Your task to perform on an android device: Check the news Image 0: 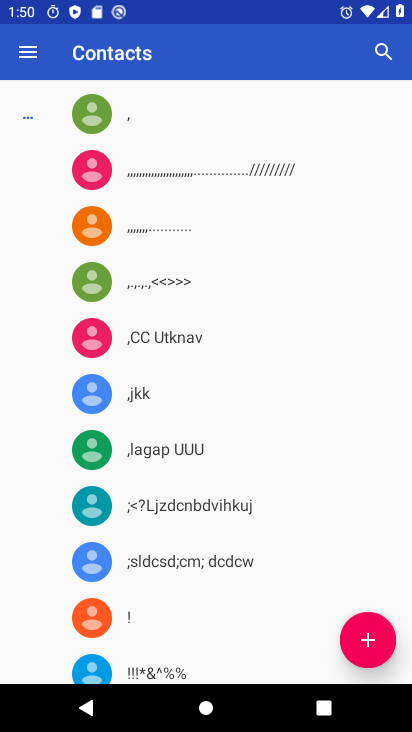
Step 0: press home button
Your task to perform on an android device: Check the news Image 1: 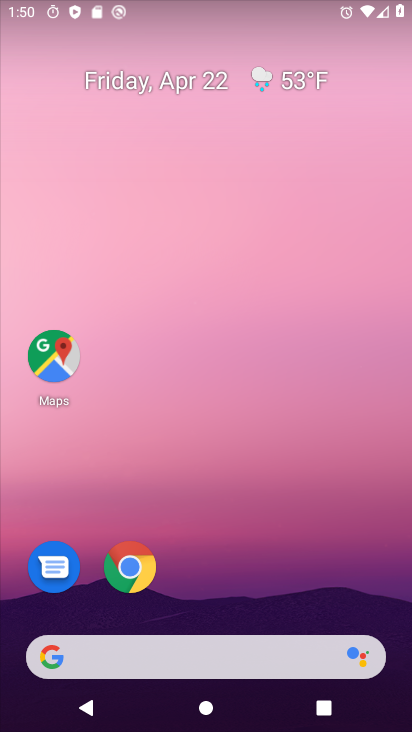
Step 1: click (144, 655)
Your task to perform on an android device: Check the news Image 2: 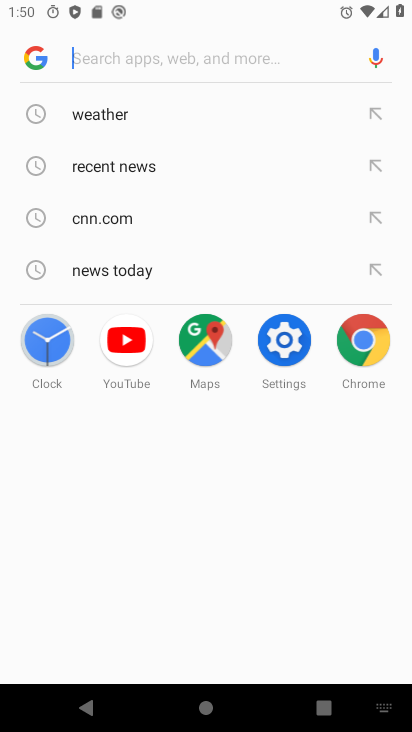
Step 2: click (90, 263)
Your task to perform on an android device: Check the news Image 3: 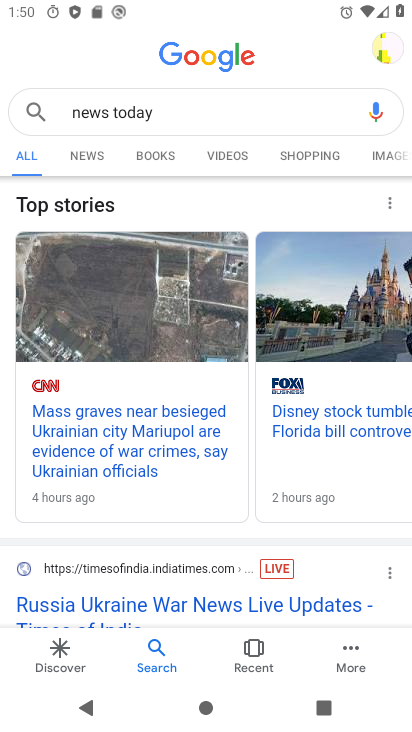
Step 3: task complete